Your task to perform on an android device: Search for the best books on Goodreads Image 0: 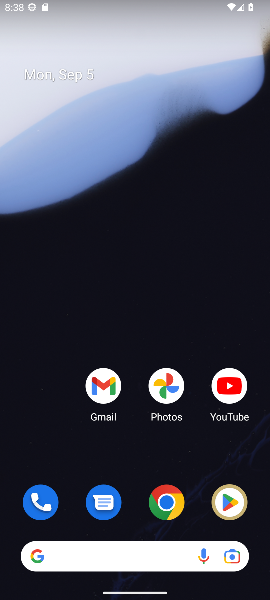
Step 0: drag from (133, 466) to (55, 0)
Your task to perform on an android device: Search for the best books on Goodreads Image 1: 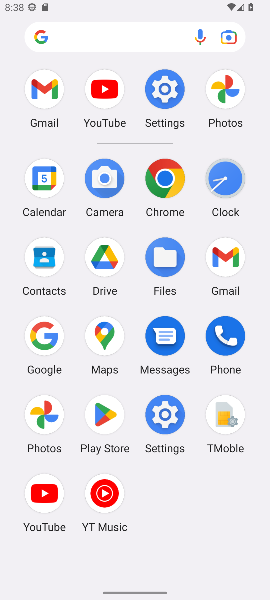
Step 1: click (43, 325)
Your task to perform on an android device: Search for the best books on Goodreads Image 2: 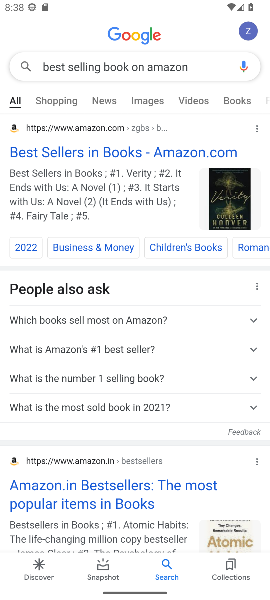
Step 2: press back button
Your task to perform on an android device: Search for the best books on Goodreads Image 3: 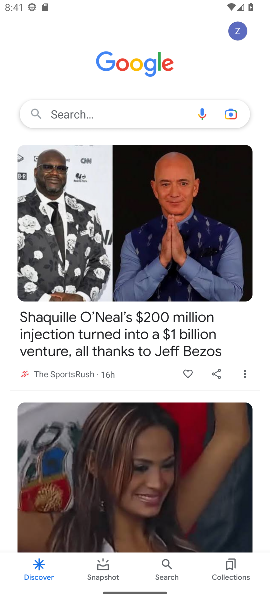
Step 3: click (108, 121)
Your task to perform on an android device: Search for the best books on Goodreads Image 4: 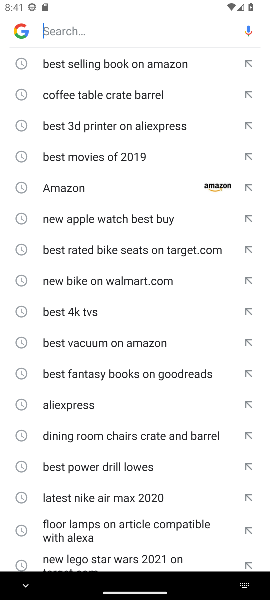
Step 4: type " best books on Goodreads"
Your task to perform on an android device: Search for the best books on Goodreads Image 5: 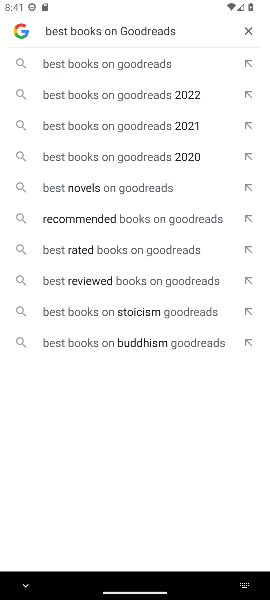
Step 5: click (90, 64)
Your task to perform on an android device: Search for the best books on Goodreads Image 6: 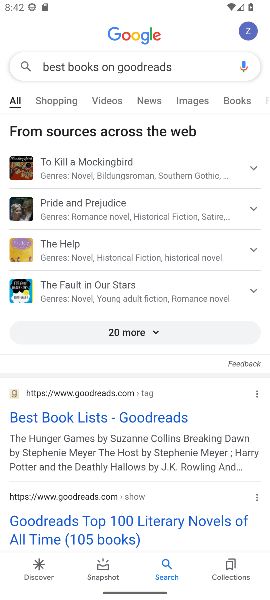
Step 6: task complete